Your task to perform on an android device: turn off javascript in the chrome app Image 0: 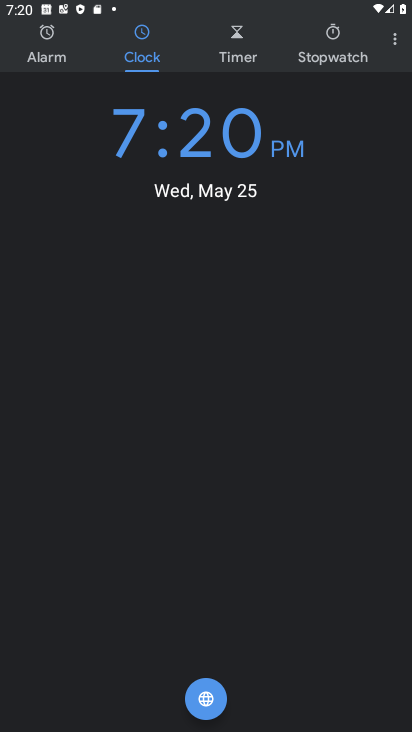
Step 0: press home button
Your task to perform on an android device: turn off javascript in the chrome app Image 1: 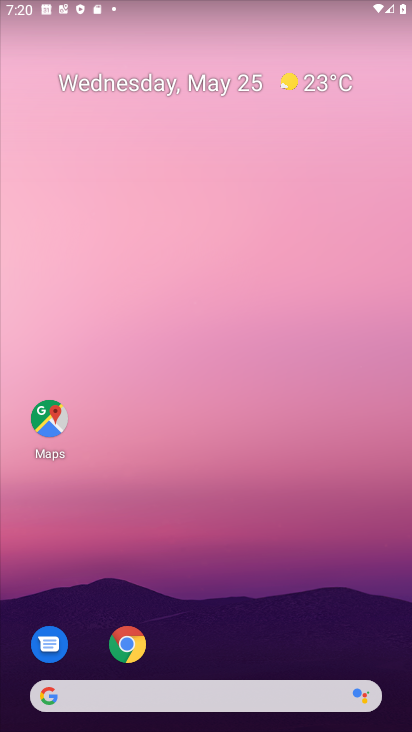
Step 1: drag from (296, 697) to (258, 123)
Your task to perform on an android device: turn off javascript in the chrome app Image 2: 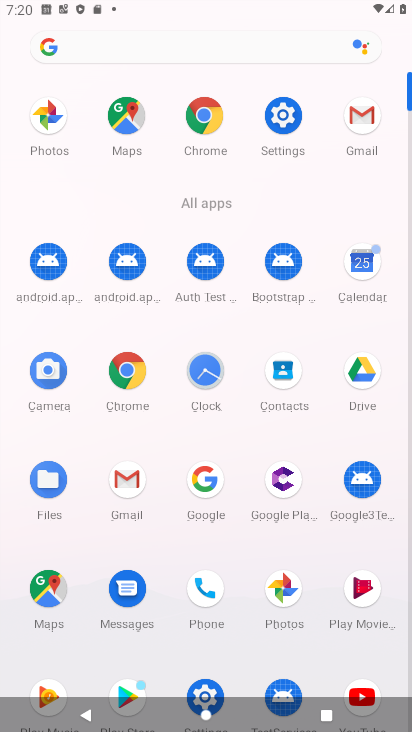
Step 2: click (200, 126)
Your task to perform on an android device: turn off javascript in the chrome app Image 3: 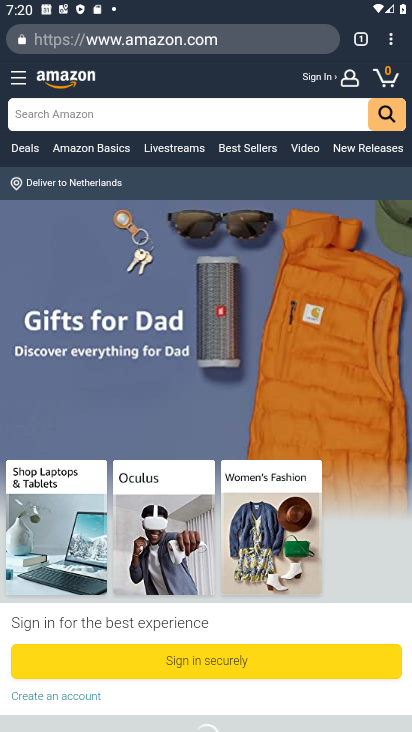
Step 3: click (387, 37)
Your task to perform on an android device: turn off javascript in the chrome app Image 4: 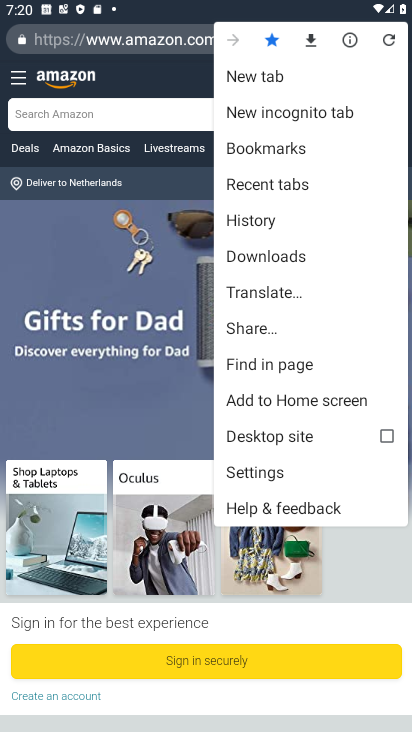
Step 4: click (289, 468)
Your task to perform on an android device: turn off javascript in the chrome app Image 5: 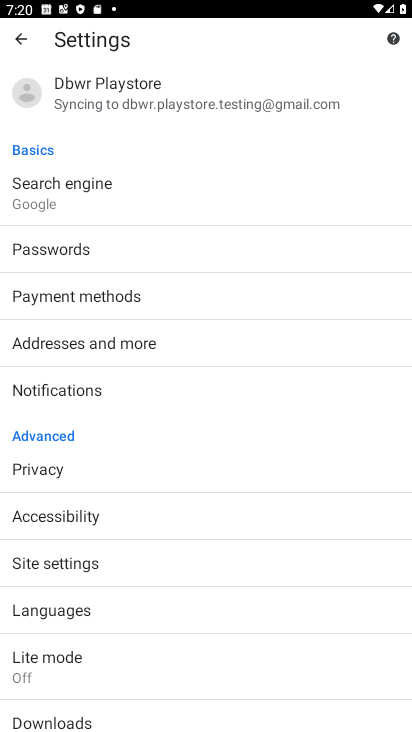
Step 5: click (107, 563)
Your task to perform on an android device: turn off javascript in the chrome app Image 6: 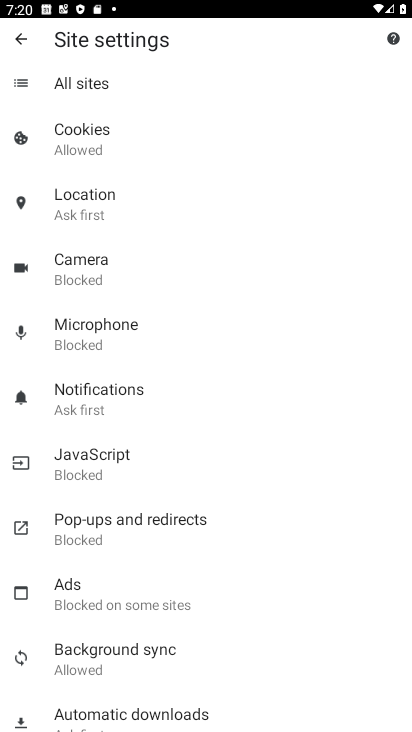
Step 6: click (139, 446)
Your task to perform on an android device: turn off javascript in the chrome app Image 7: 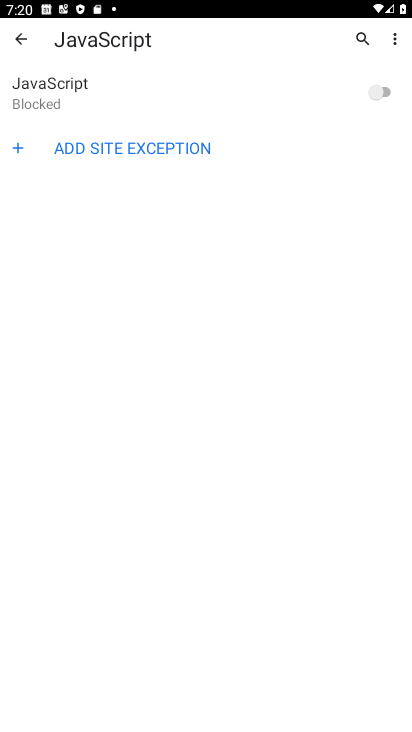
Step 7: click (361, 93)
Your task to perform on an android device: turn off javascript in the chrome app Image 8: 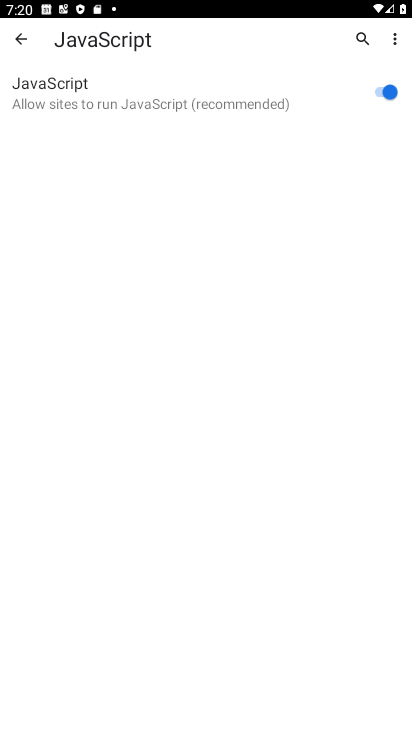
Step 8: click (357, 99)
Your task to perform on an android device: turn off javascript in the chrome app Image 9: 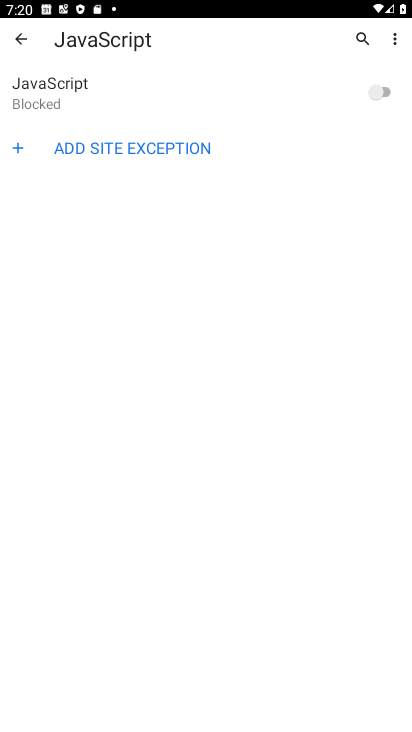
Step 9: task complete